Your task to perform on an android device: Go to Google Image 0: 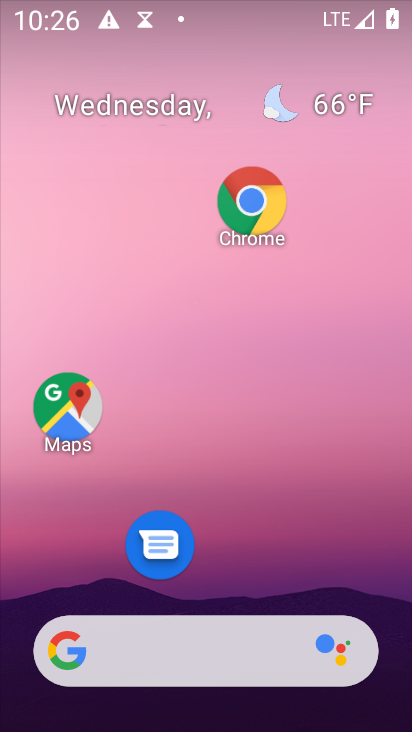
Step 0: drag from (263, 577) to (162, 81)
Your task to perform on an android device: Go to Google Image 1: 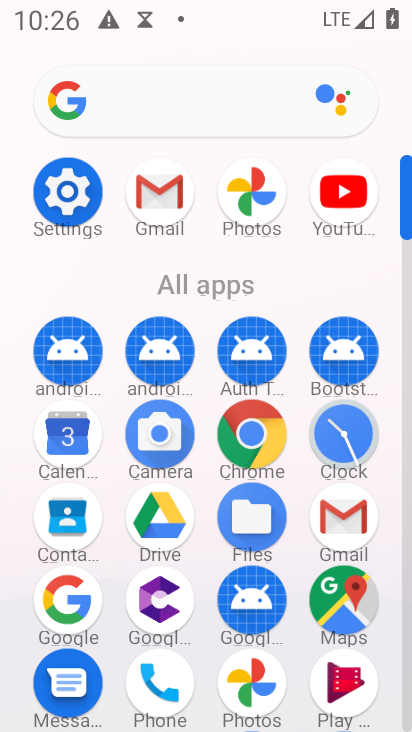
Step 1: click (72, 581)
Your task to perform on an android device: Go to Google Image 2: 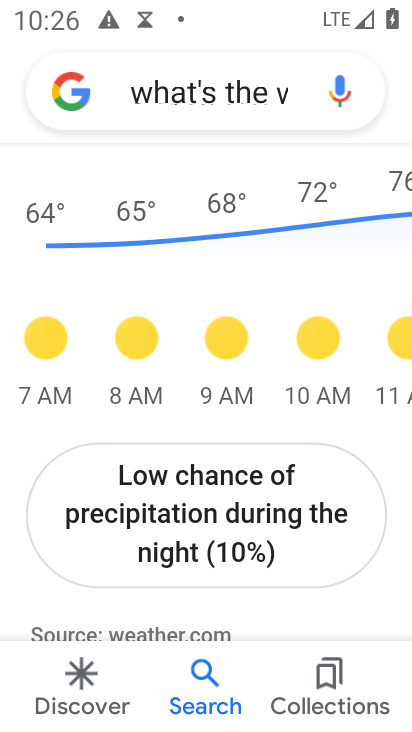
Step 2: task complete